Your task to perform on an android device: Search for vegetarian restaurants on Maps Image 0: 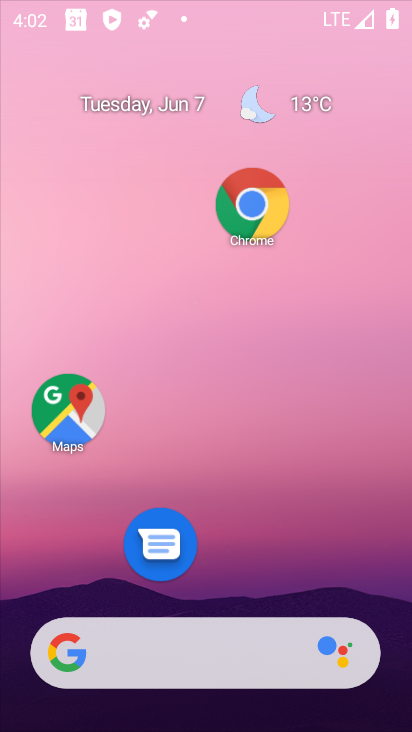
Step 0: press home button
Your task to perform on an android device: Search for vegetarian restaurants on Maps Image 1: 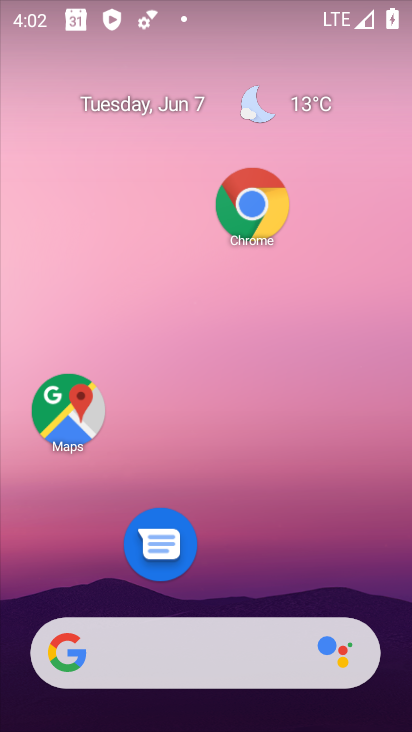
Step 1: click (71, 406)
Your task to perform on an android device: Search for vegetarian restaurants on Maps Image 2: 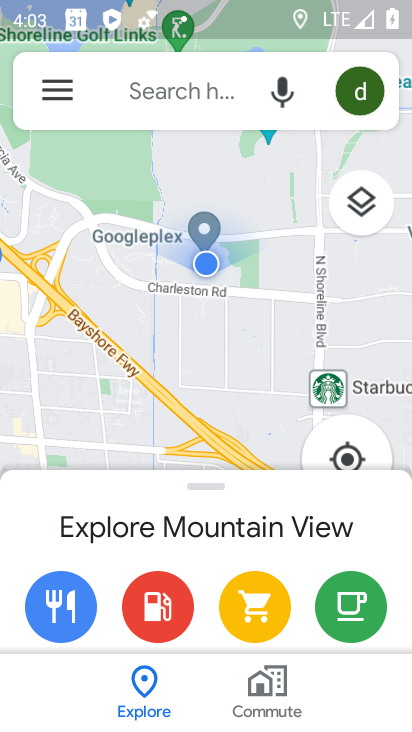
Step 2: click (158, 93)
Your task to perform on an android device: Search for vegetarian restaurants on Maps Image 3: 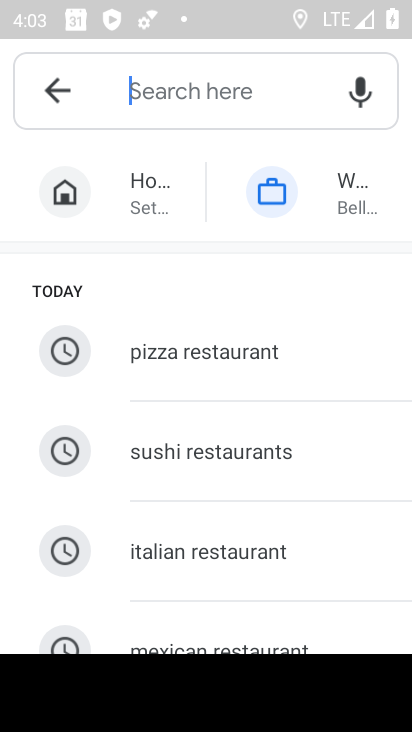
Step 3: drag from (233, 596) to (252, 275)
Your task to perform on an android device: Search for vegetarian restaurants on Maps Image 4: 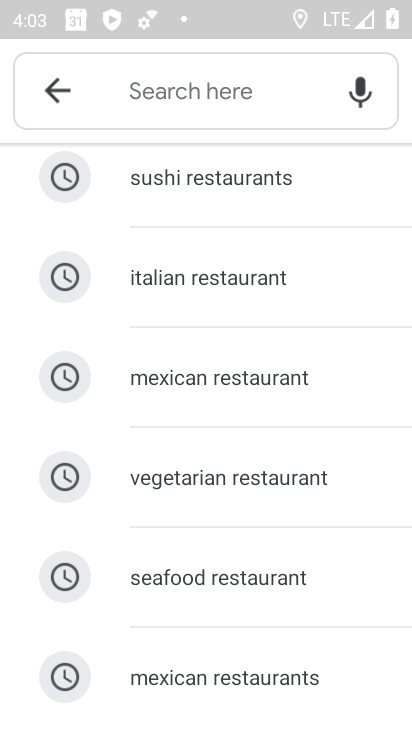
Step 4: click (196, 483)
Your task to perform on an android device: Search for vegetarian restaurants on Maps Image 5: 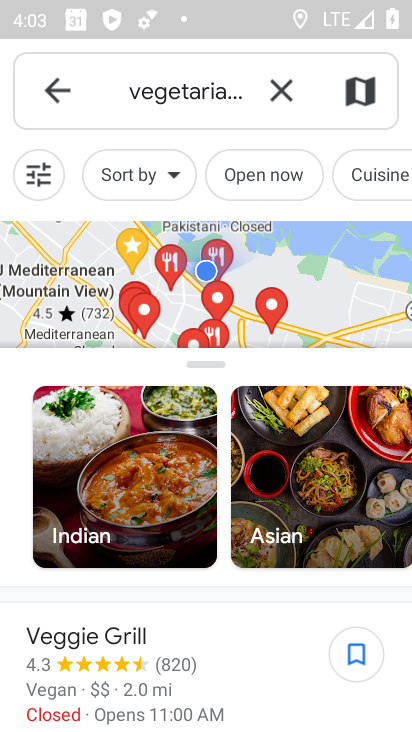
Step 5: task complete